Your task to perform on an android device: stop showing notifications on the lock screen Image 0: 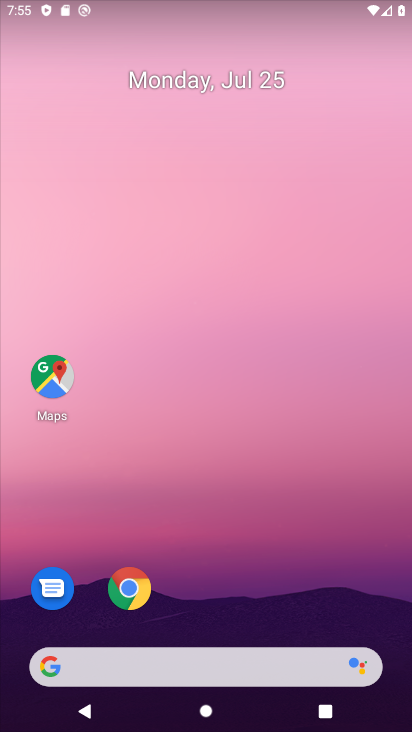
Step 0: drag from (221, 649) to (239, 155)
Your task to perform on an android device: stop showing notifications on the lock screen Image 1: 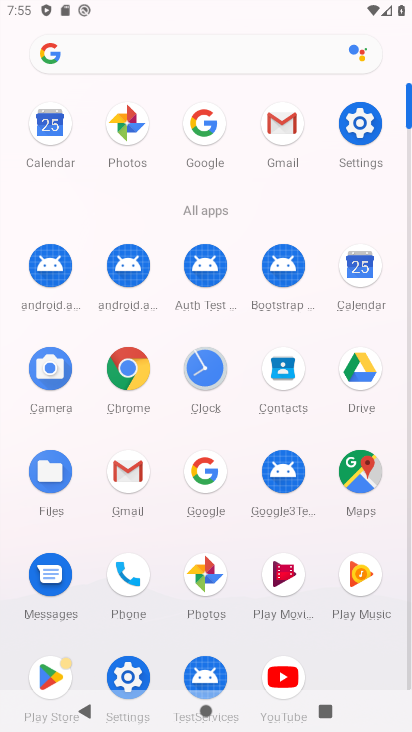
Step 1: click (355, 123)
Your task to perform on an android device: stop showing notifications on the lock screen Image 2: 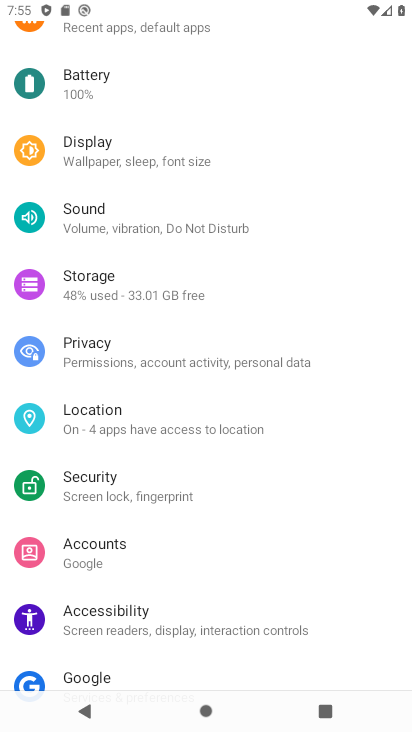
Step 2: click (98, 355)
Your task to perform on an android device: stop showing notifications on the lock screen Image 3: 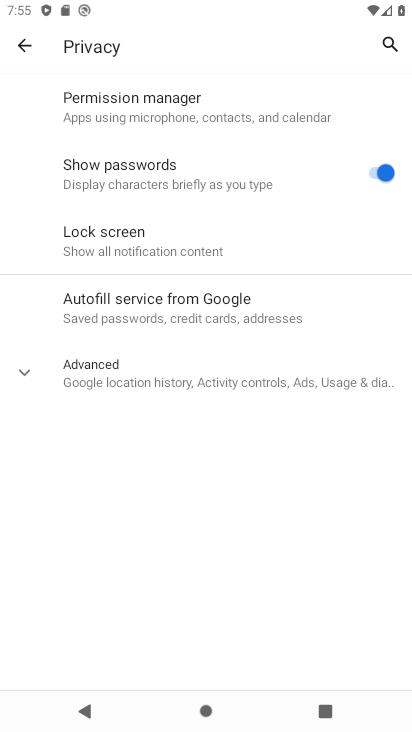
Step 3: click (86, 370)
Your task to perform on an android device: stop showing notifications on the lock screen Image 4: 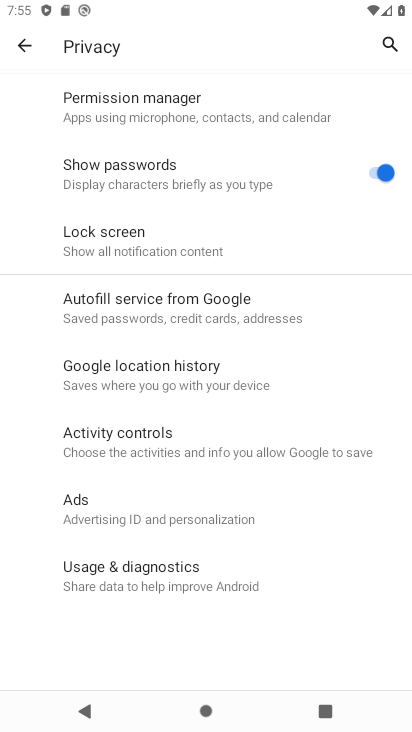
Step 4: click (91, 241)
Your task to perform on an android device: stop showing notifications on the lock screen Image 5: 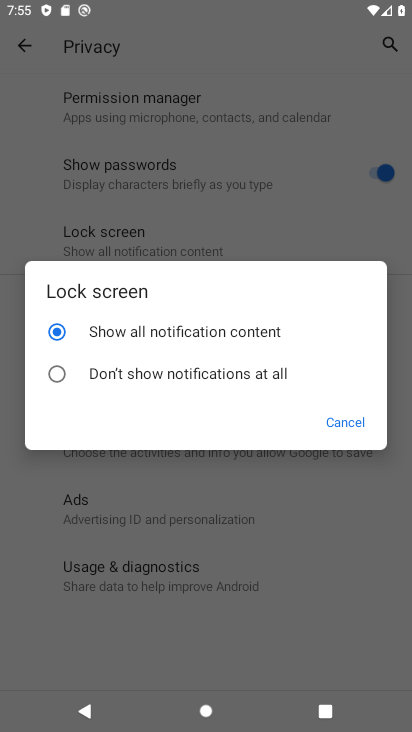
Step 5: click (99, 374)
Your task to perform on an android device: stop showing notifications on the lock screen Image 6: 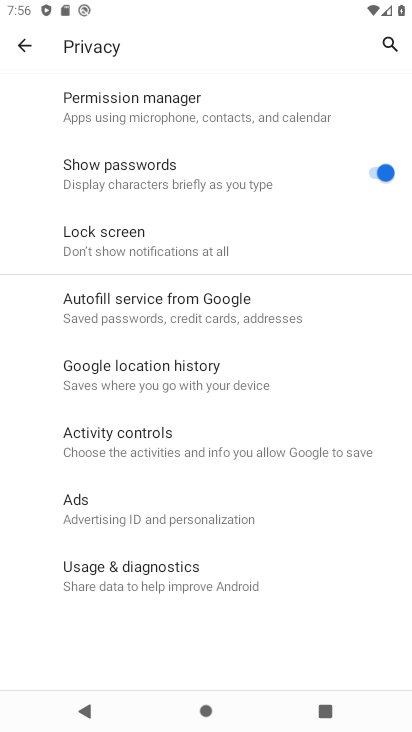
Step 6: task complete